Your task to perform on an android device: Open the map Image 0: 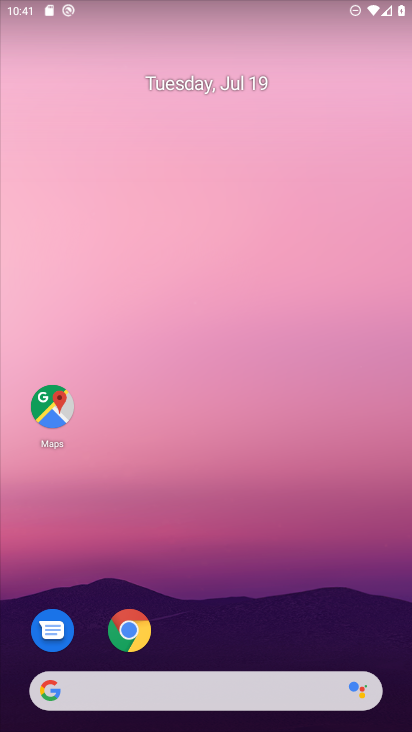
Step 0: click (33, 429)
Your task to perform on an android device: Open the map Image 1: 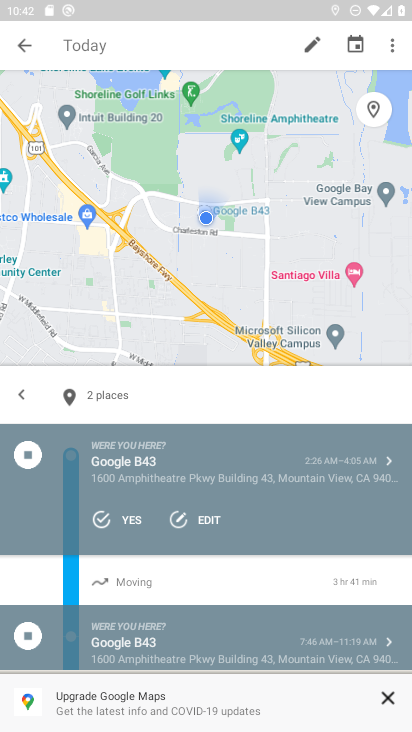
Step 1: task complete